Your task to perform on an android device: create a new album in the google photos Image 0: 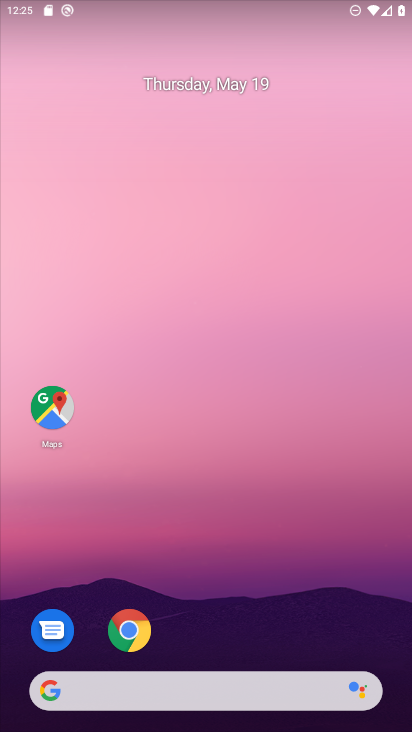
Step 0: press home button
Your task to perform on an android device: create a new album in the google photos Image 1: 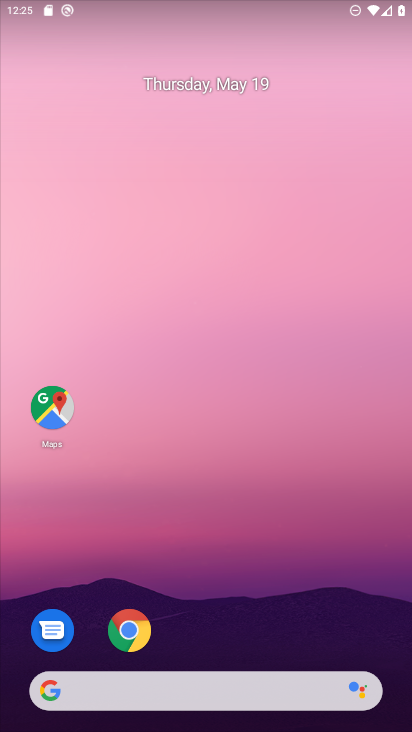
Step 1: drag from (219, 630) to (232, 197)
Your task to perform on an android device: create a new album in the google photos Image 2: 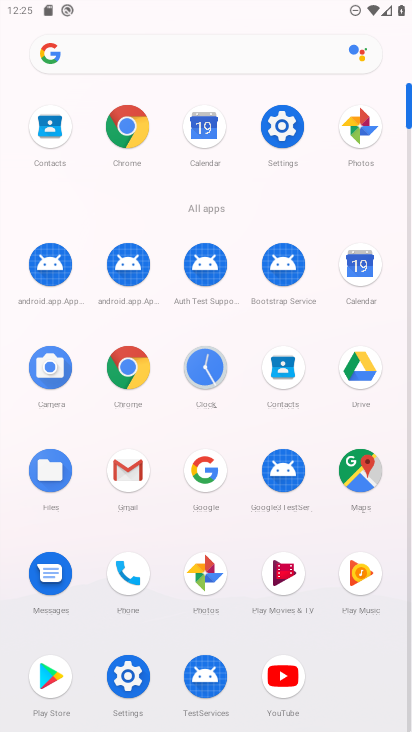
Step 2: click (199, 573)
Your task to perform on an android device: create a new album in the google photos Image 3: 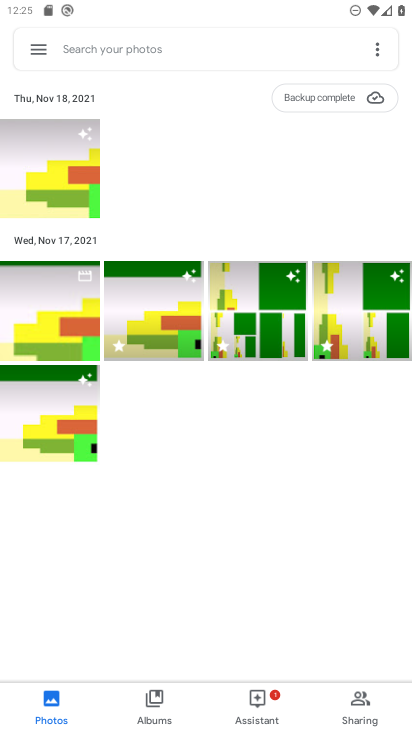
Step 3: click (152, 693)
Your task to perform on an android device: create a new album in the google photos Image 4: 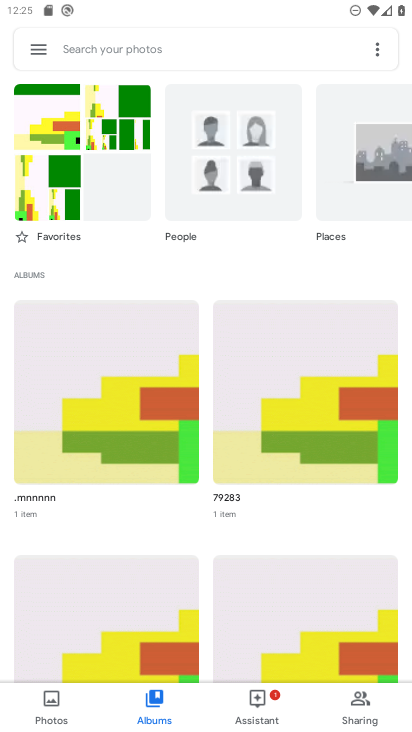
Step 4: click (380, 40)
Your task to perform on an android device: create a new album in the google photos Image 5: 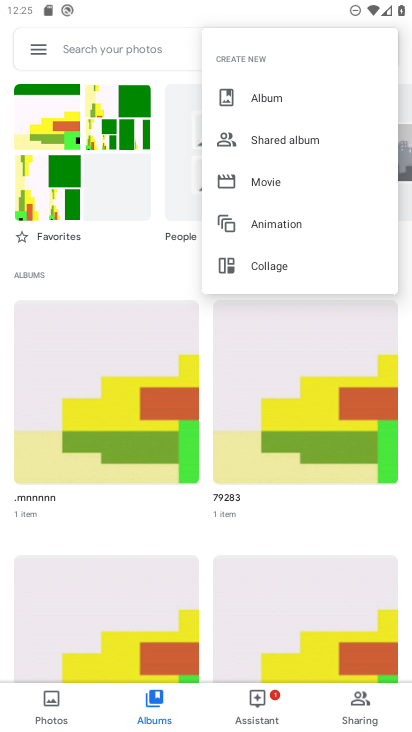
Step 5: click (252, 83)
Your task to perform on an android device: create a new album in the google photos Image 6: 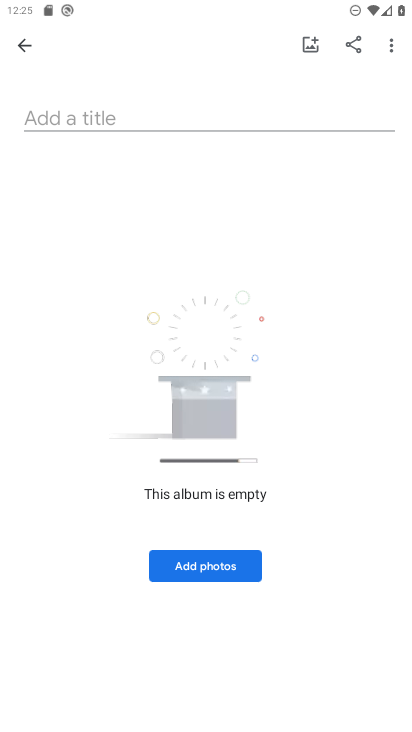
Step 6: click (79, 115)
Your task to perform on an android device: create a new album in the google photos Image 7: 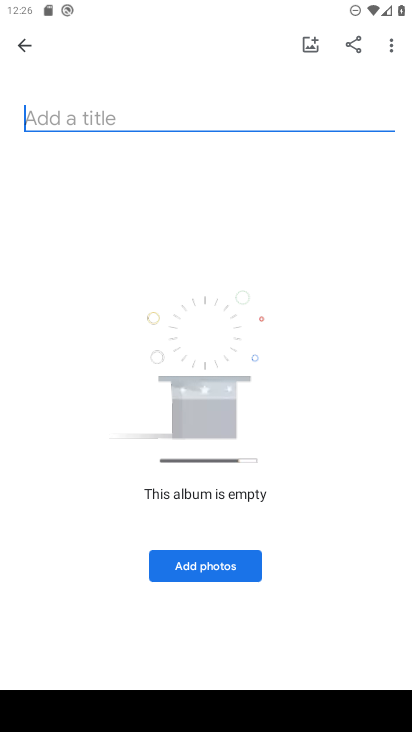
Step 7: type "mani"
Your task to perform on an android device: create a new album in the google photos Image 8: 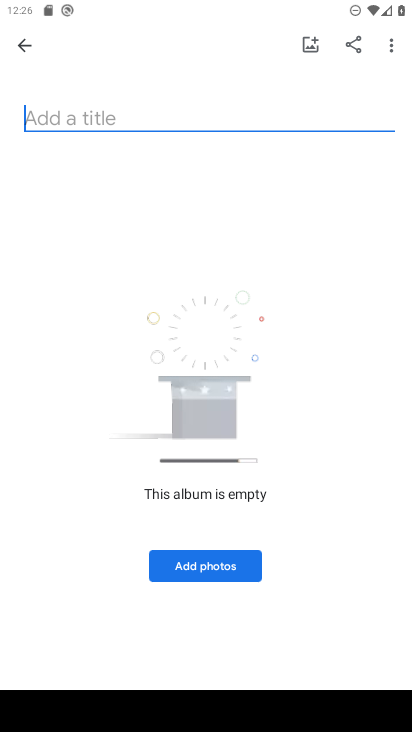
Step 8: click (230, 561)
Your task to perform on an android device: create a new album in the google photos Image 9: 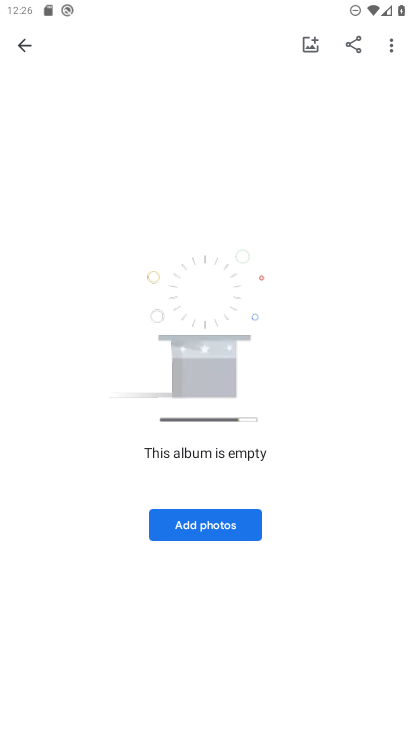
Step 9: click (218, 511)
Your task to perform on an android device: create a new album in the google photos Image 10: 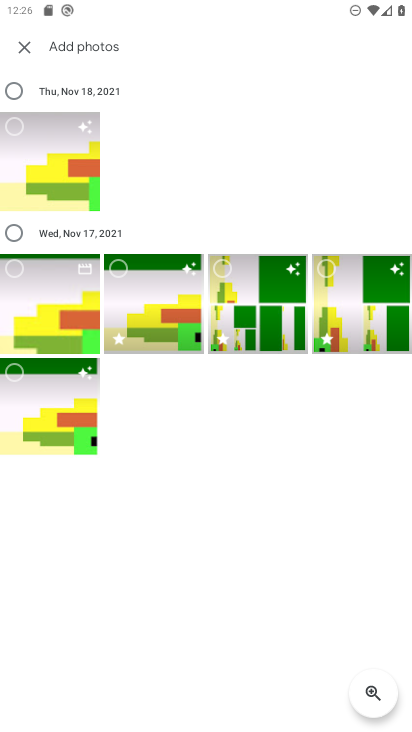
Step 10: click (12, 131)
Your task to perform on an android device: create a new album in the google photos Image 11: 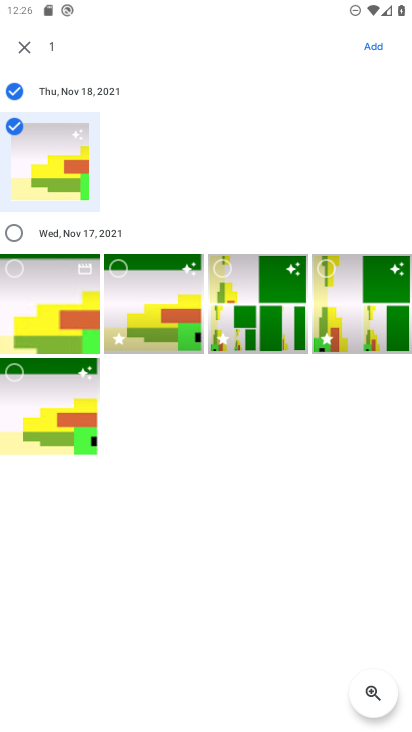
Step 11: click (11, 258)
Your task to perform on an android device: create a new album in the google photos Image 12: 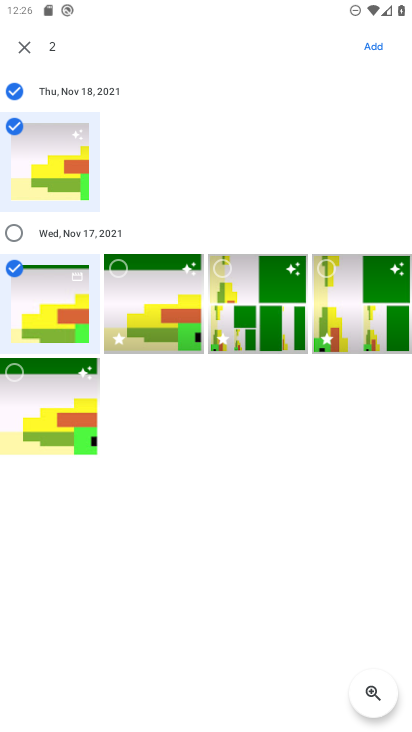
Step 12: click (384, 46)
Your task to perform on an android device: create a new album in the google photos Image 13: 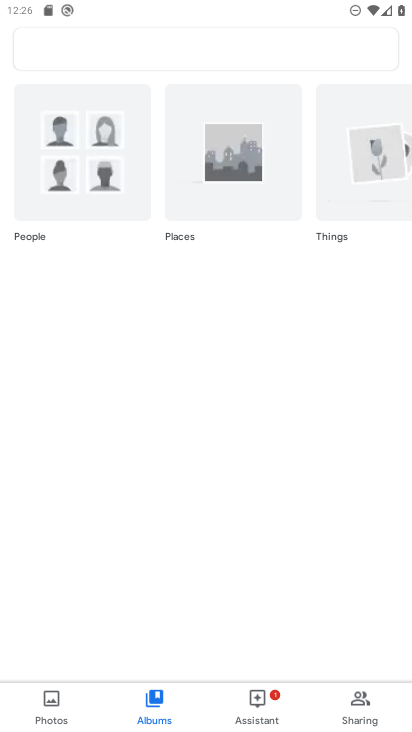
Step 13: task complete